Your task to perform on an android device: Show me popular games on the Play Store Image 0: 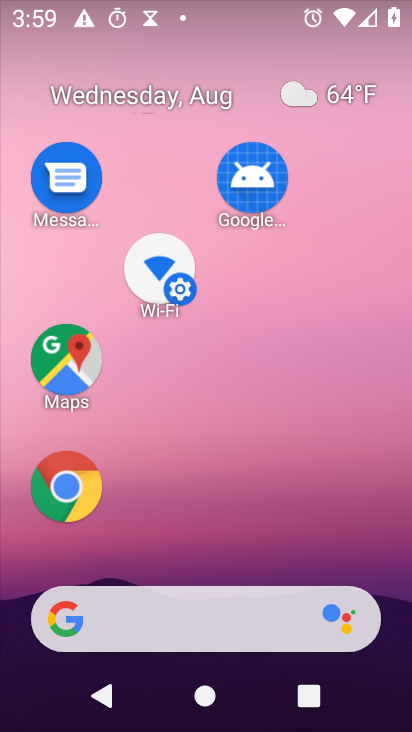
Step 0: press home button
Your task to perform on an android device: Show me popular games on the Play Store Image 1: 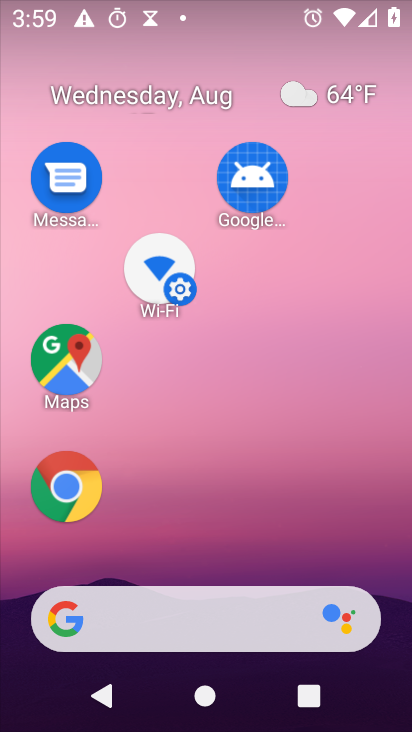
Step 1: drag from (280, 569) to (368, 116)
Your task to perform on an android device: Show me popular games on the Play Store Image 2: 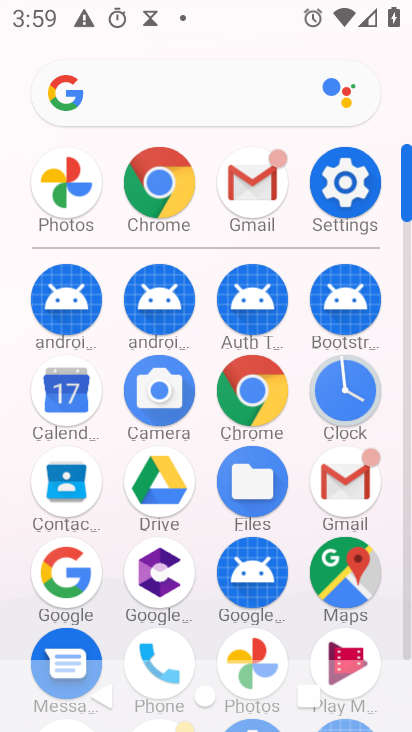
Step 2: drag from (294, 615) to (409, 104)
Your task to perform on an android device: Show me popular games on the Play Store Image 3: 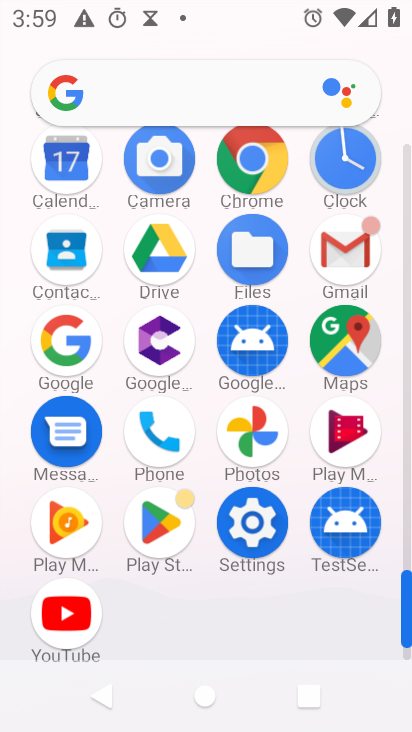
Step 3: click (159, 503)
Your task to perform on an android device: Show me popular games on the Play Store Image 4: 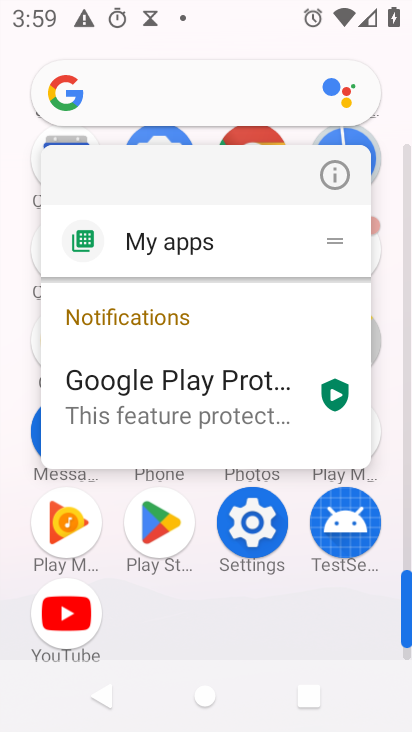
Step 4: click (159, 503)
Your task to perform on an android device: Show me popular games on the Play Store Image 5: 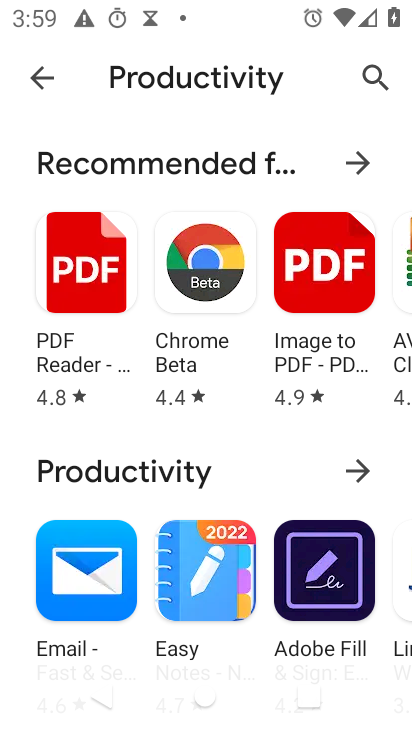
Step 5: press back button
Your task to perform on an android device: Show me popular games on the Play Store Image 6: 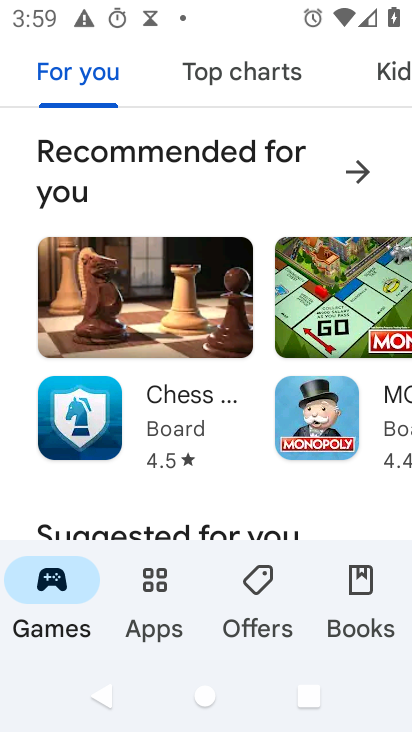
Step 6: click (47, 568)
Your task to perform on an android device: Show me popular games on the Play Store Image 7: 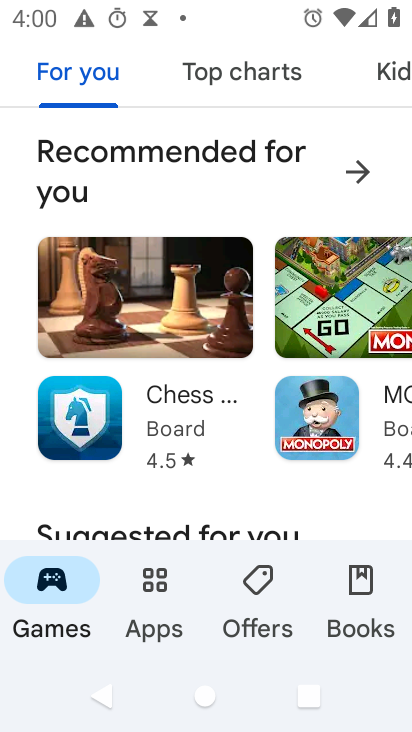
Step 7: drag from (397, 82) to (82, 56)
Your task to perform on an android device: Show me popular games on the Play Store Image 8: 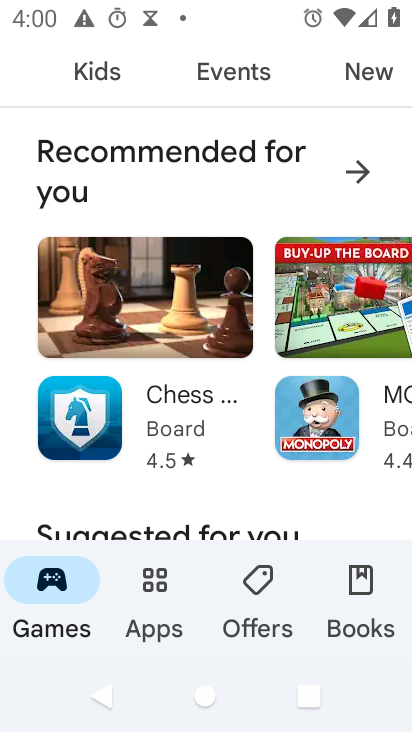
Step 8: drag from (394, 83) to (97, 71)
Your task to perform on an android device: Show me popular games on the Play Store Image 9: 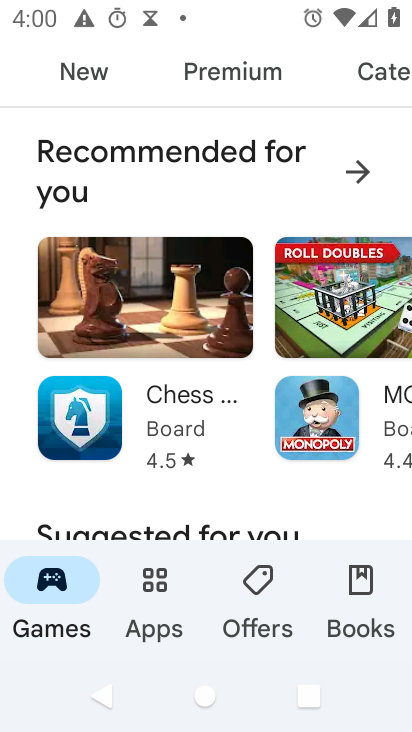
Step 9: click (377, 69)
Your task to perform on an android device: Show me popular games on the Play Store Image 10: 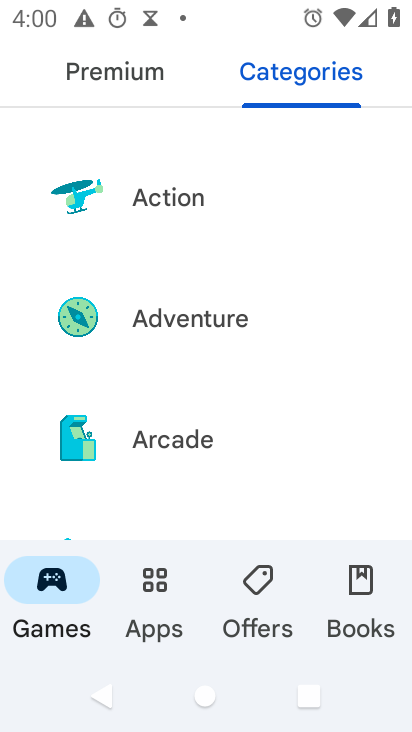
Step 10: task complete